Your task to perform on an android device: Open Android settings Image 0: 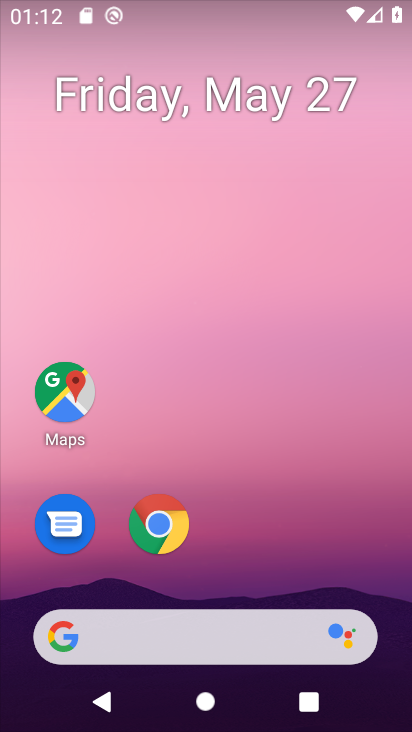
Step 0: drag from (242, 563) to (216, 20)
Your task to perform on an android device: Open Android settings Image 1: 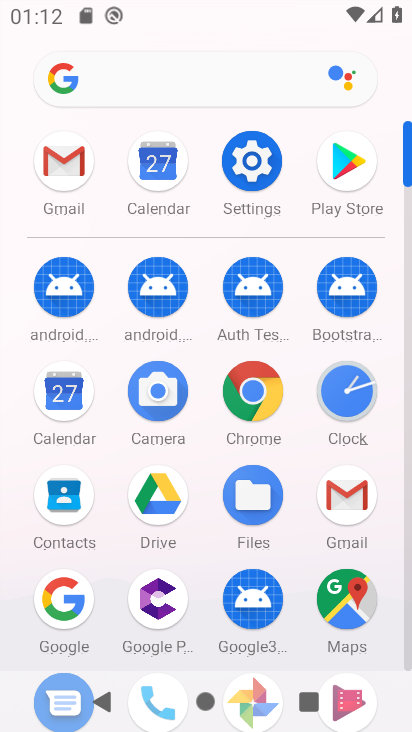
Step 1: click (250, 171)
Your task to perform on an android device: Open Android settings Image 2: 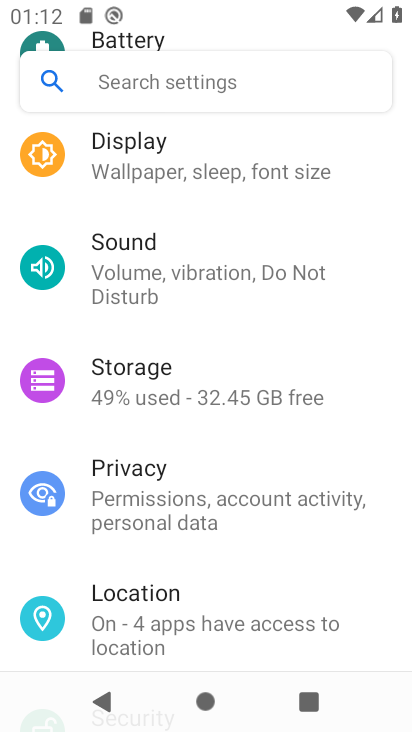
Step 2: drag from (228, 545) to (260, 5)
Your task to perform on an android device: Open Android settings Image 3: 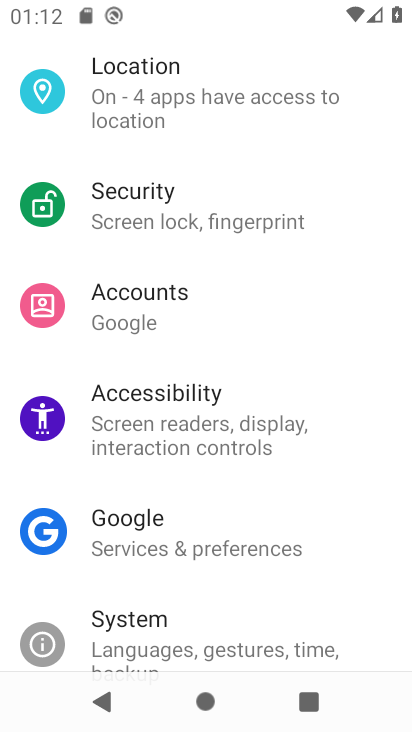
Step 3: drag from (232, 598) to (241, 202)
Your task to perform on an android device: Open Android settings Image 4: 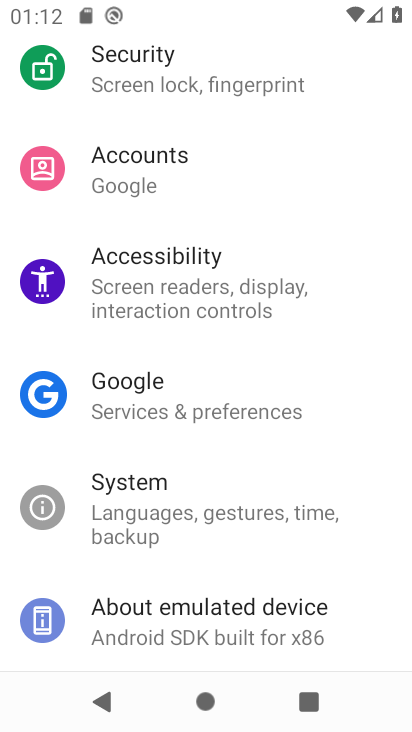
Step 4: click (223, 613)
Your task to perform on an android device: Open Android settings Image 5: 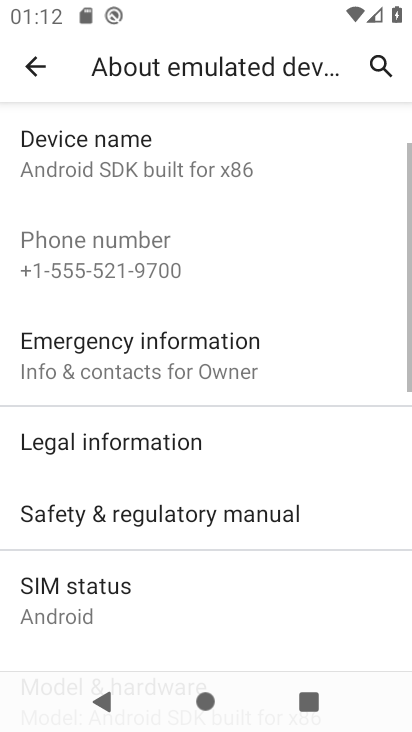
Step 5: task complete